Your task to perform on an android device: allow notifications from all sites in the chrome app Image 0: 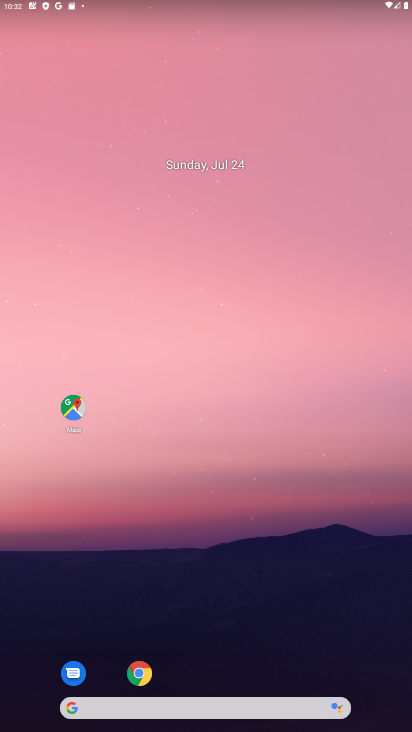
Step 0: click (134, 666)
Your task to perform on an android device: allow notifications from all sites in the chrome app Image 1: 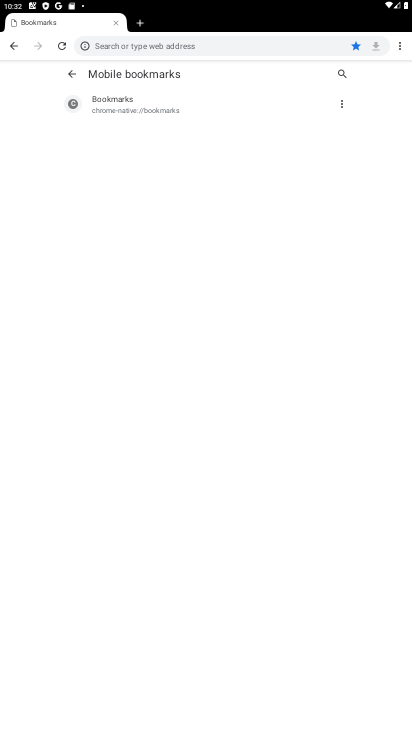
Step 1: click (403, 41)
Your task to perform on an android device: allow notifications from all sites in the chrome app Image 2: 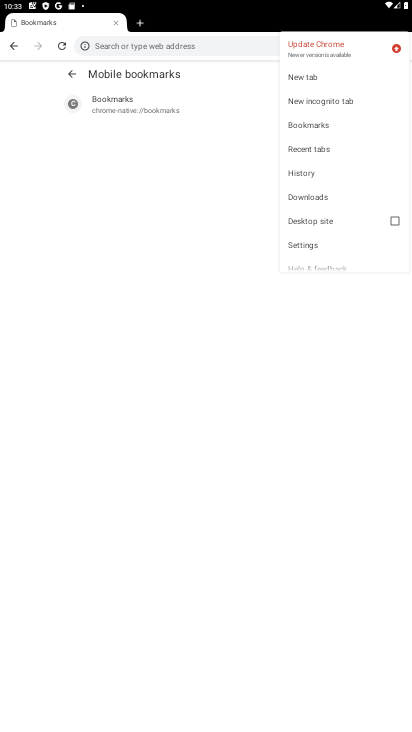
Step 2: click (297, 249)
Your task to perform on an android device: allow notifications from all sites in the chrome app Image 3: 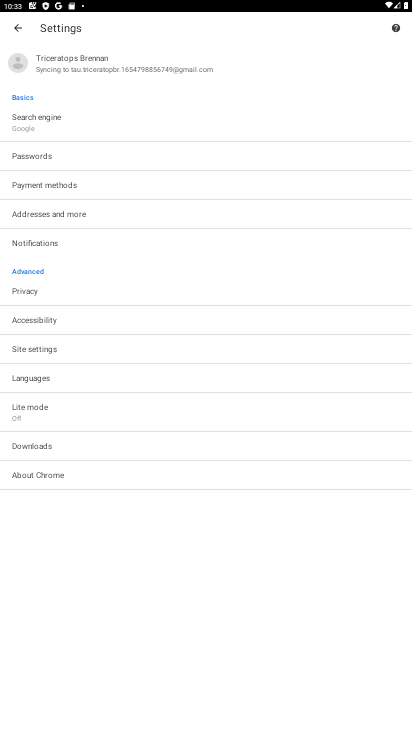
Step 3: click (42, 345)
Your task to perform on an android device: allow notifications from all sites in the chrome app Image 4: 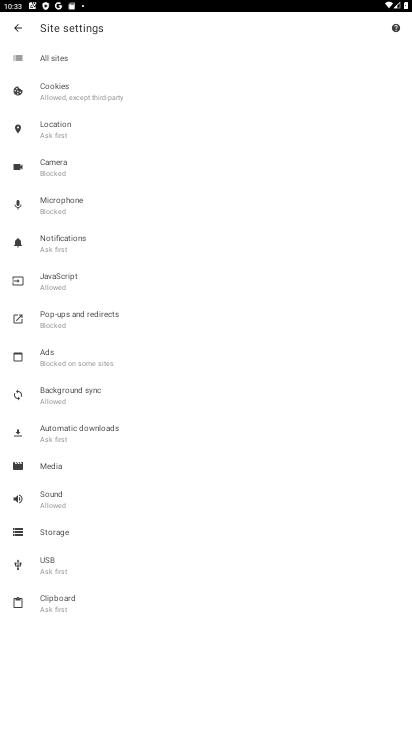
Step 4: task complete